Your task to perform on an android device: open app "Booking.com: Hotels and more" (install if not already installed) and go to login screen Image 0: 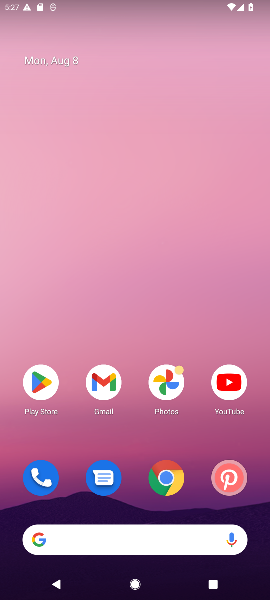
Step 0: click (39, 381)
Your task to perform on an android device: open app "Booking.com: Hotels and more" (install if not already installed) and go to login screen Image 1: 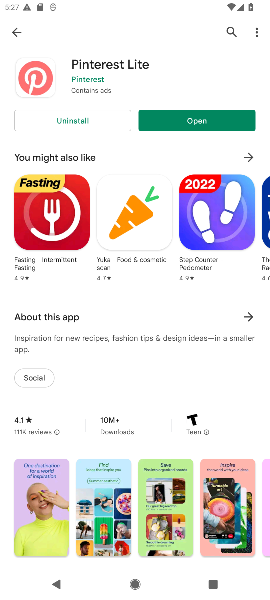
Step 1: click (16, 27)
Your task to perform on an android device: open app "Booking.com: Hotels and more" (install if not already installed) and go to login screen Image 2: 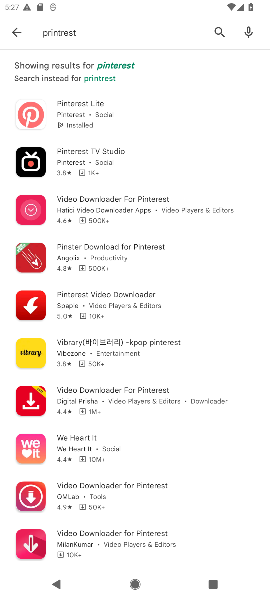
Step 2: click (157, 26)
Your task to perform on an android device: open app "Booking.com: Hotels and more" (install if not already installed) and go to login screen Image 3: 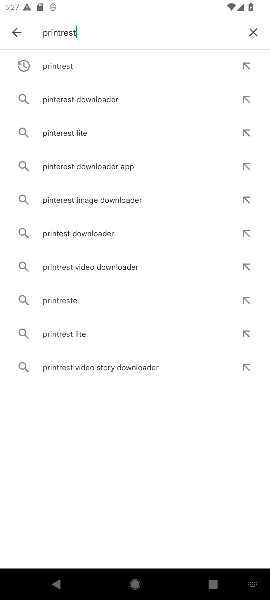
Step 3: click (253, 31)
Your task to perform on an android device: open app "Booking.com: Hotels and more" (install if not already installed) and go to login screen Image 4: 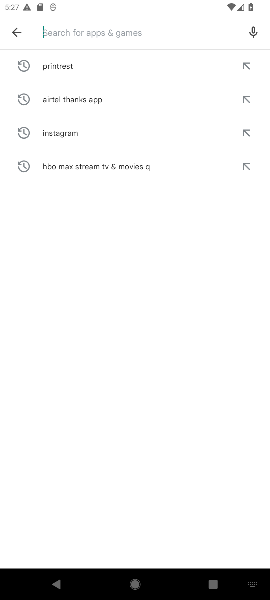
Step 4: type "booking.com Hotels and more"
Your task to perform on an android device: open app "Booking.com: Hotels and more" (install if not already installed) and go to login screen Image 5: 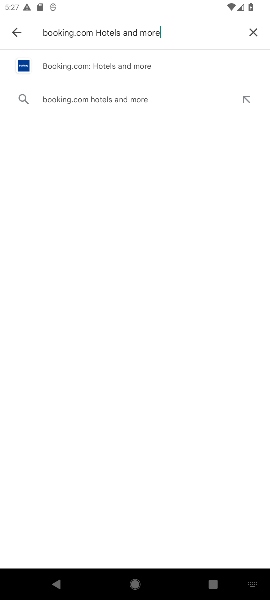
Step 5: click (112, 66)
Your task to perform on an android device: open app "Booking.com: Hotels and more" (install if not already installed) and go to login screen Image 6: 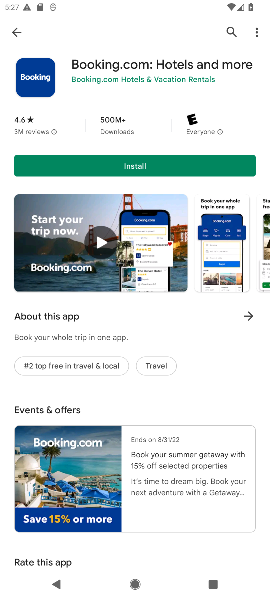
Step 6: click (140, 163)
Your task to perform on an android device: open app "Booking.com: Hotels and more" (install if not already installed) and go to login screen Image 7: 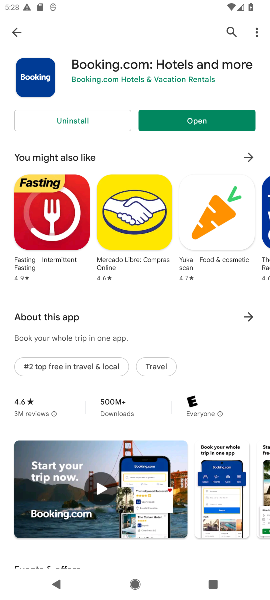
Step 7: click (226, 119)
Your task to perform on an android device: open app "Booking.com: Hotels and more" (install if not already installed) and go to login screen Image 8: 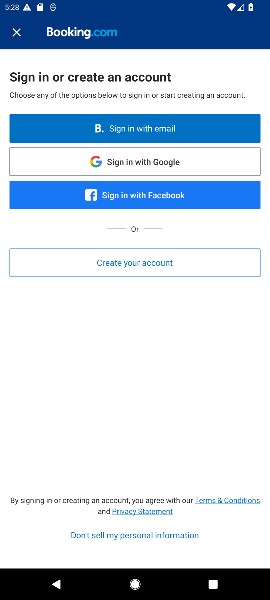
Step 8: task complete